Your task to perform on an android device: toggle pop-ups in chrome Image 0: 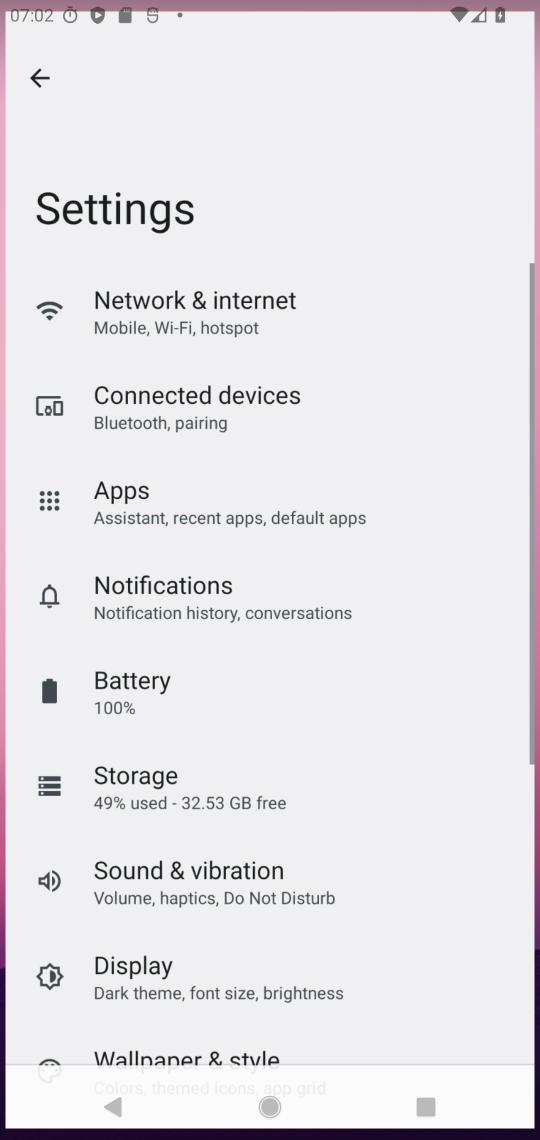
Step 0: press home button
Your task to perform on an android device: toggle pop-ups in chrome Image 1: 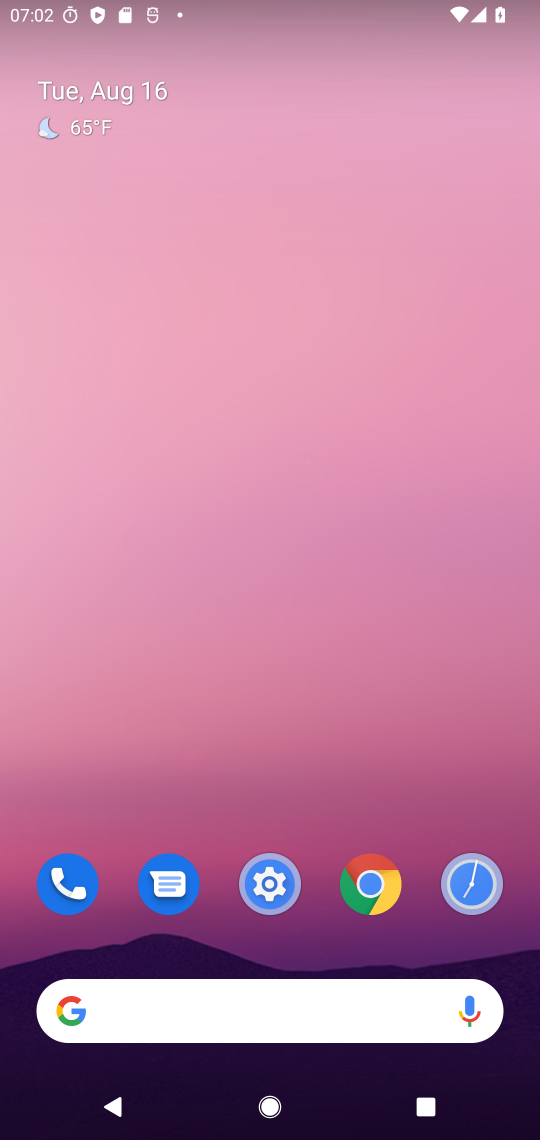
Step 1: drag from (325, 935) to (274, 12)
Your task to perform on an android device: toggle pop-ups in chrome Image 2: 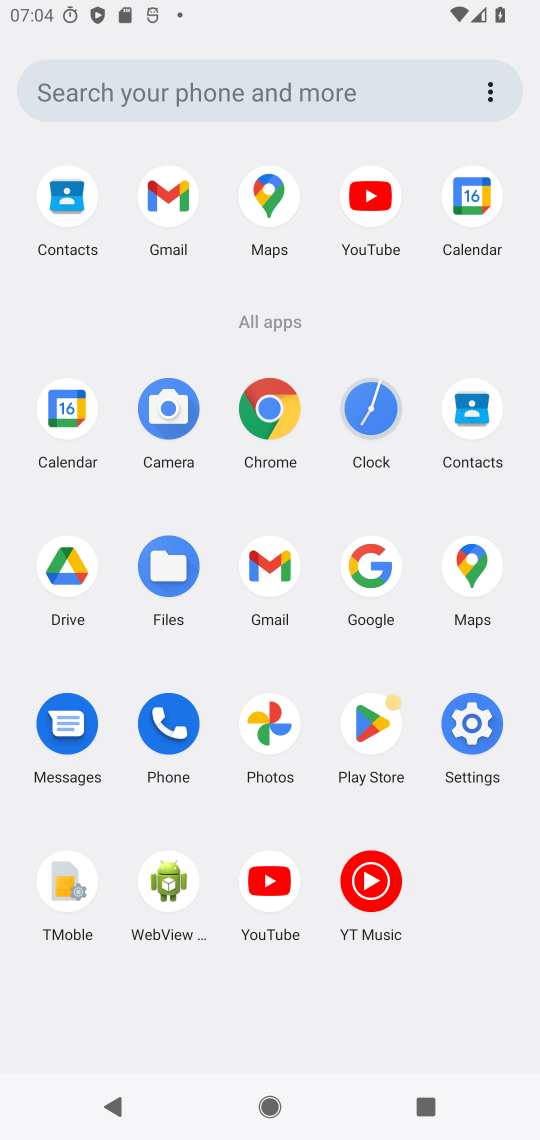
Step 2: click (268, 425)
Your task to perform on an android device: toggle pop-ups in chrome Image 3: 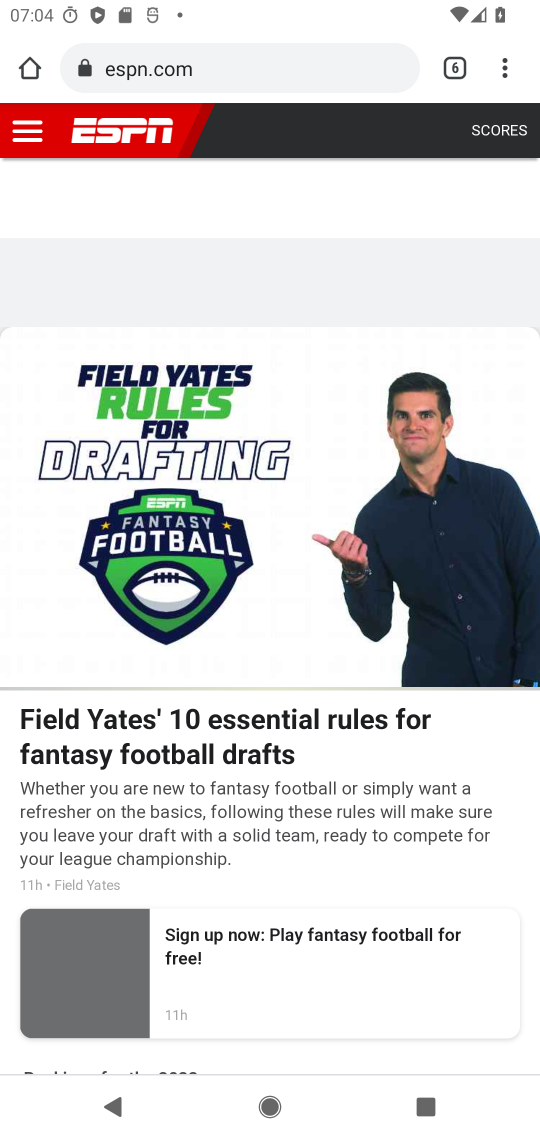
Step 3: drag from (505, 71) to (332, 842)
Your task to perform on an android device: toggle pop-ups in chrome Image 4: 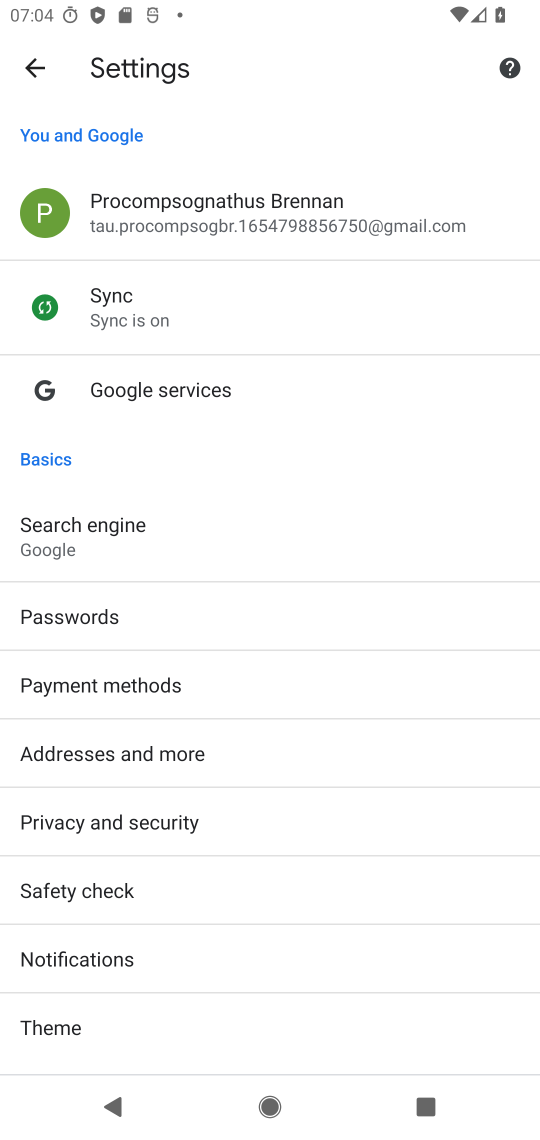
Step 4: drag from (286, 940) to (420, 27)
Your task to perform on an android device: toggle pop-ups in chrome Image 5: 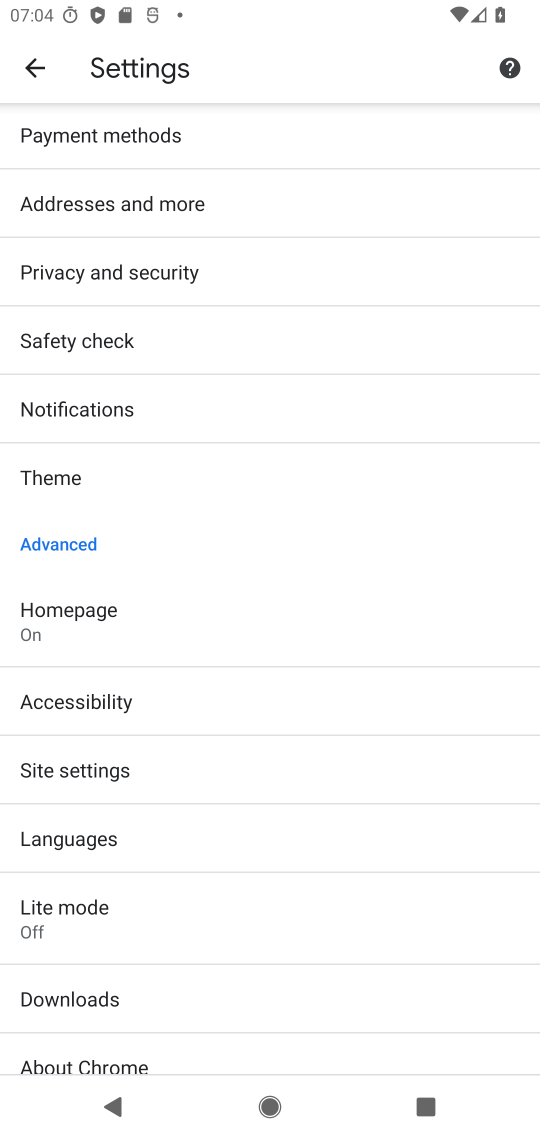
Step 5: click (79, 774)
Your task to perform on an android device: toggle pop-ups in chrome Image 6: 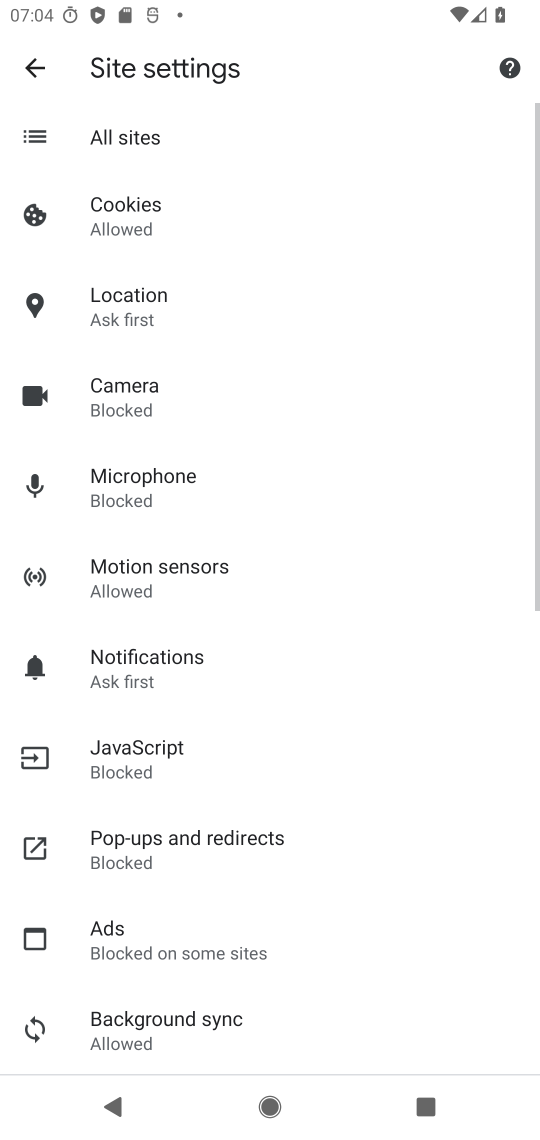
Step 6: click (155, 861)
Your task to perform on an android device: toggle pop-ups in chrome Image 7: 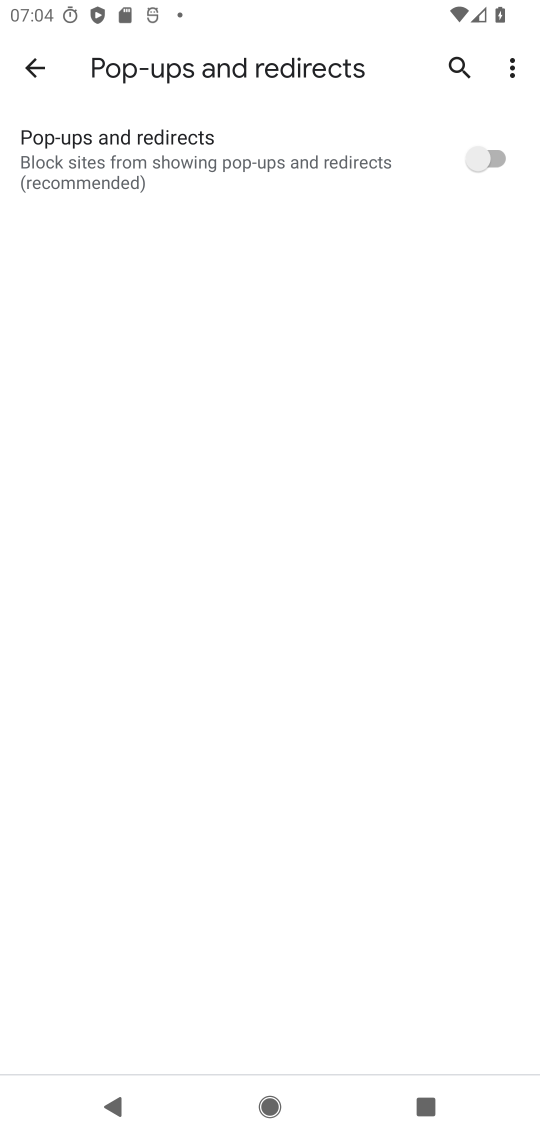
Step 7: click (473, 166)
Your task to perform on an android device: toggle pop-ups in chrome Image 8: 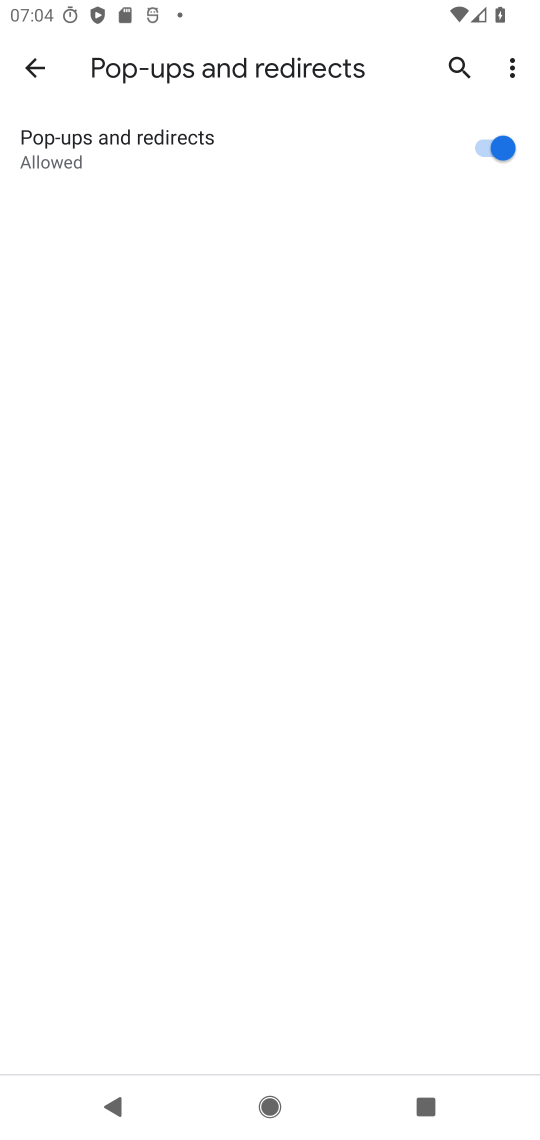
Step 8: task complete